Your task to perform on an android device: toggle javascript in the chrome app Image 0: 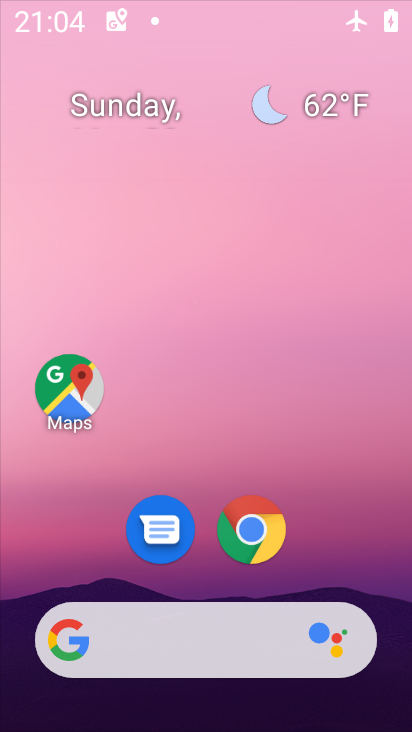
Step 0: press back button
Your task to perform on an android device: toggle javascript in the chrome app Image 1: 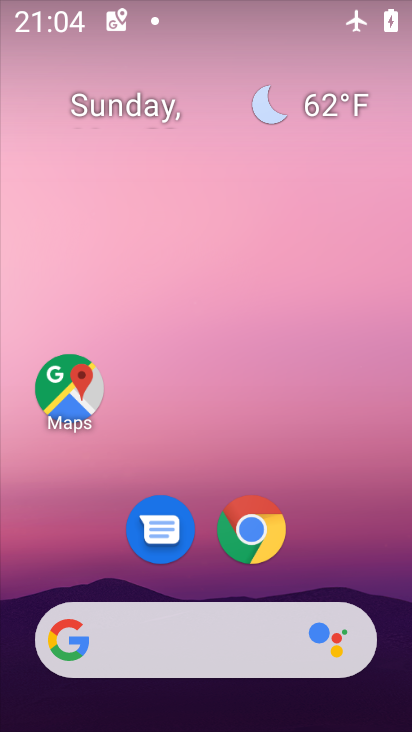
Step 1: drag from (249, 698) to (239, 216)
Your task to perform on an android device: toggle javascript in the chrome app Image 2: 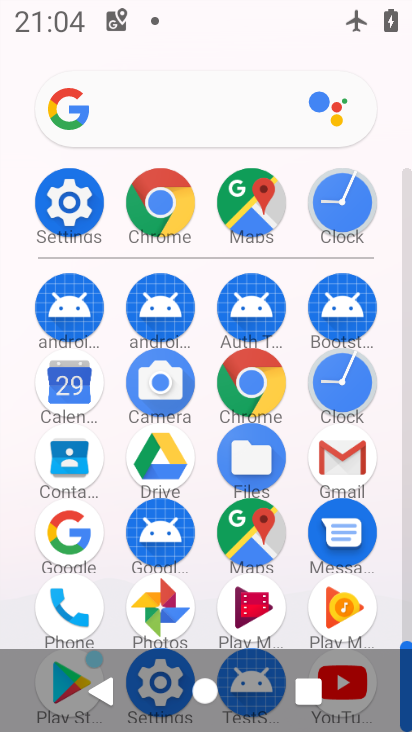
Step 2: click (146, 198)
Your task to perform on an android device: toggle javascript in the chrome app Image 3: 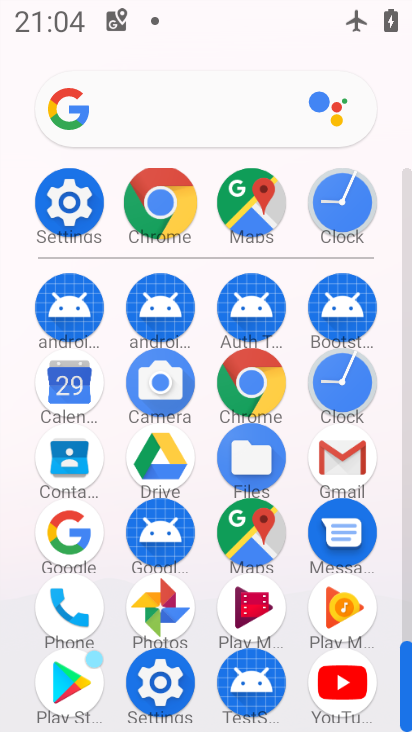
Step 3: click (149, 197)
Your task to perform on an android device: toggle javascript in the chrome app Image 4: 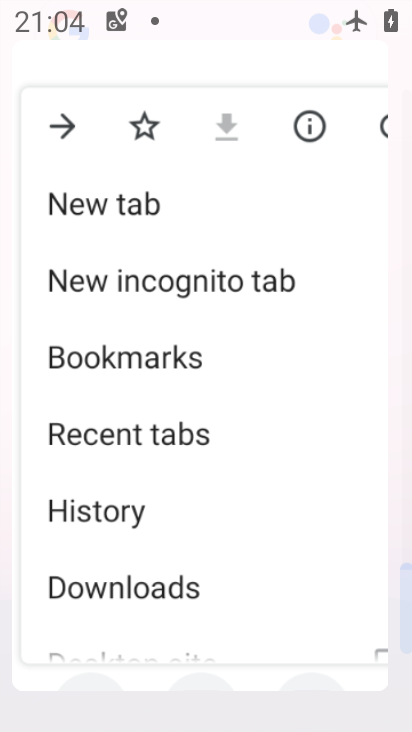
Step 4: click (150, 193)
Your task to perform on an android device: toggle javascript in the chrome app Image 5: 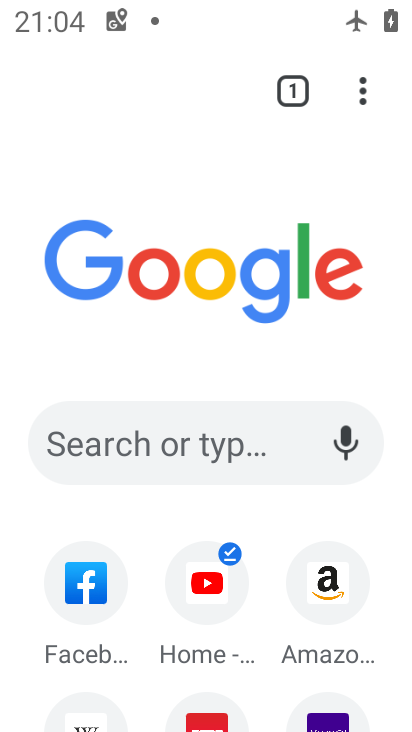
Step 5: press back button
Your task to perform on an android device: toggle javascript in the chrome app Image 6: 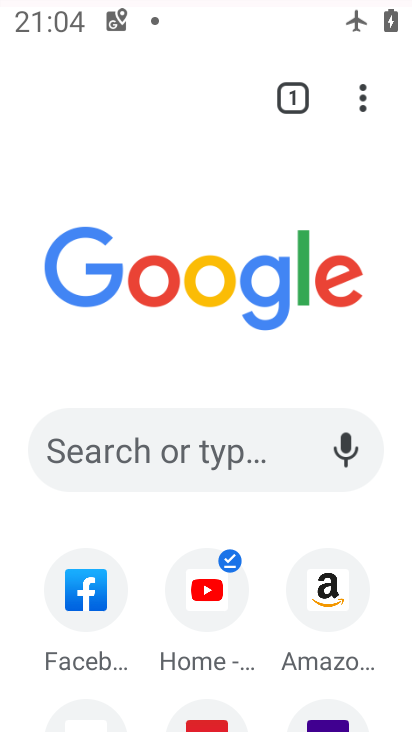
Step 6: press back button
Your task to perform on an android device: toggle javascript in the chrome app Image 7: 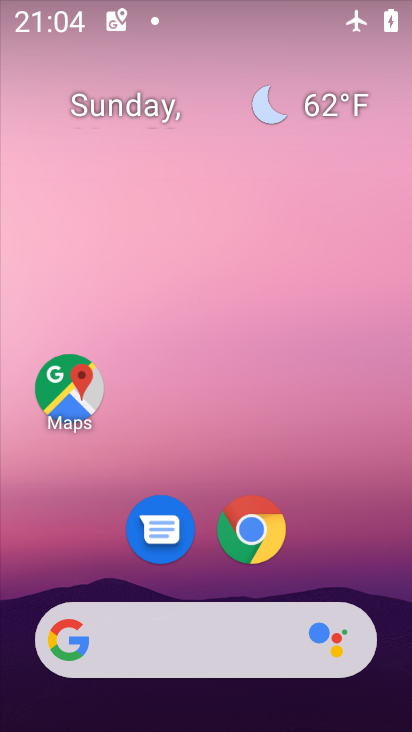
Step 7: drag from (163, 339) to (127, 83)
Your task to perform on an android device: toggle javascript in the chrome app Image 8: 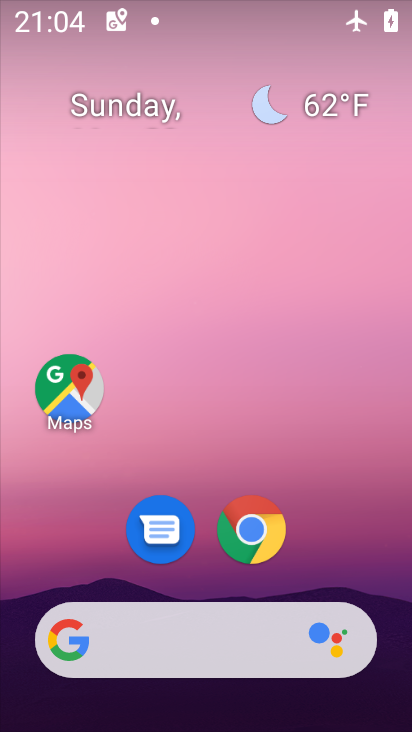
Step 8: drag from (251, 657) to (183, 225)
Your task to perform on an android device: toggle javascript in the chrome app Image 9: 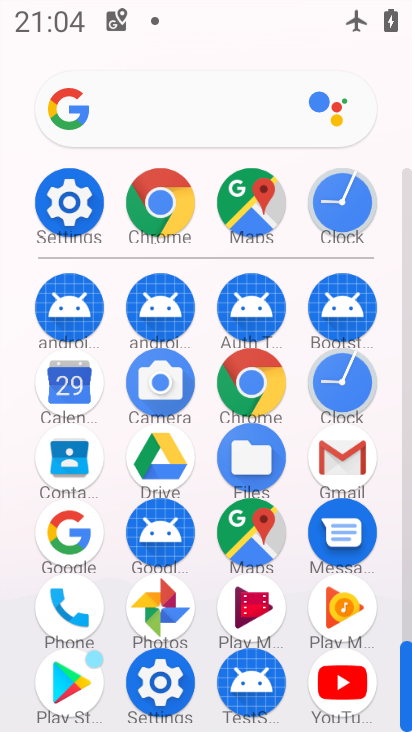
Step 9: drag from (218, 674) to (121, 267)
Your task to perform on an android device: toggle javascript in the chrome app Image 10: 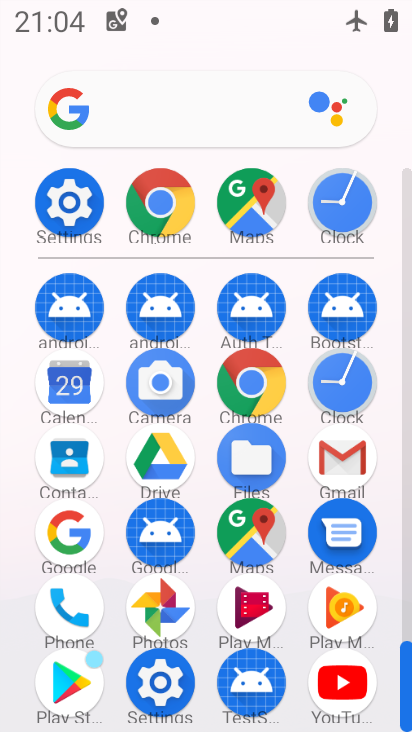
Step 10: click (166, 194)
Your task to perform on an android device: toggle javascript in the chrome app Image 11: 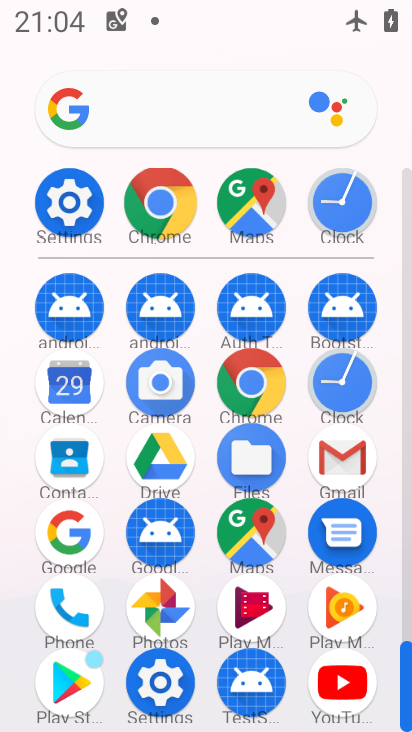
Step 11: click (166, 194)
Your task to perform on an android device: toggle javascript in the chrome app Image 12: 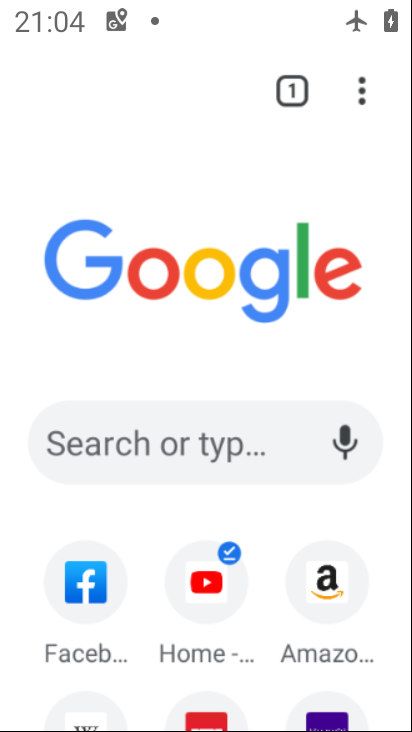
Step 12: click (167, 195)
Your task to perform on an android device: toggle javascript in the chrome app Image 13: 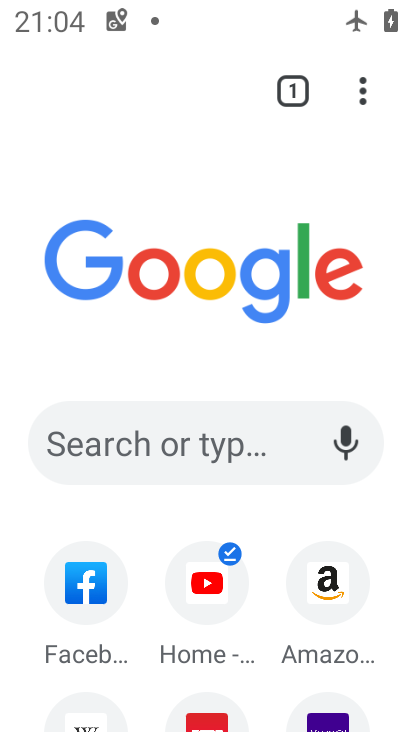
Step 13: click (356, 105)
Your task to perform on an android device: toggle javascript in the chrome app Image 14: 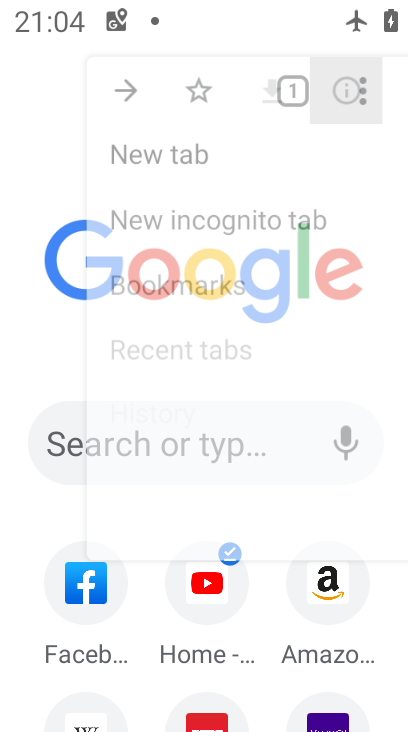
Step 14: click (358, 99)
Your task to perform on an android device: toggle javascript in the chrome app Image 15: 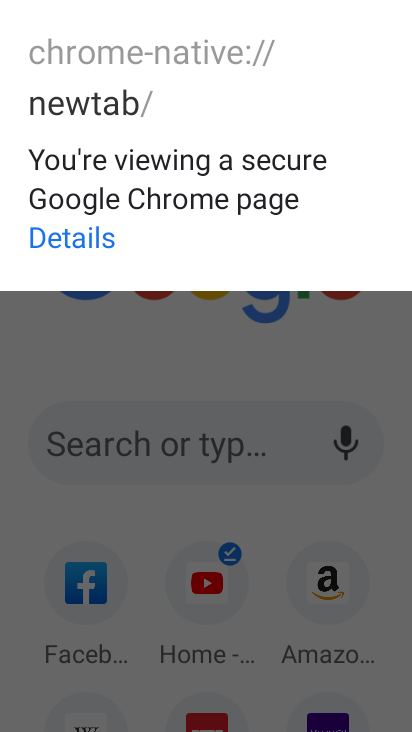
Step 15: click (214, 377)
Your task to perform on an android device: toggle javascript in the chrome app Image 16: 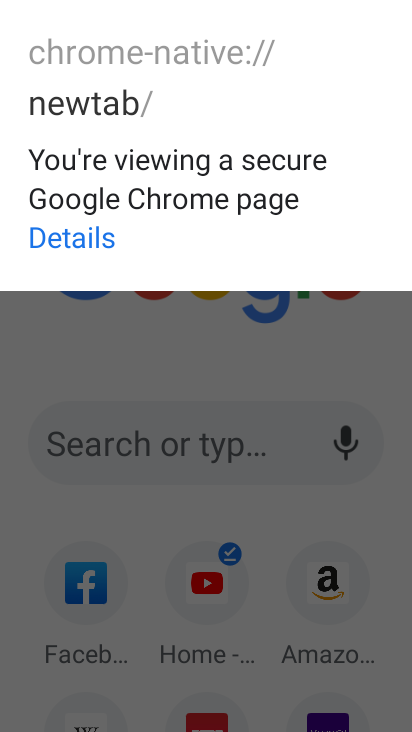
Step 16: click (209, 362)
Your task to perform on an android device: toggle javascript in the chrome app Image 17: 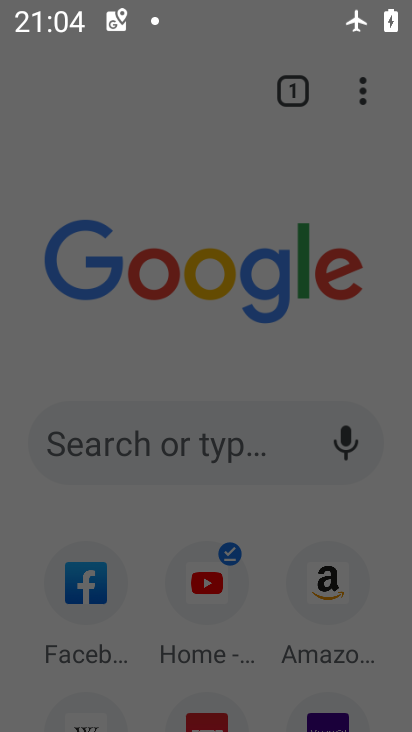
Step 17: click (201, 355)
Your task to perform on an android device: toggle javascript in the chrome app Image 18: 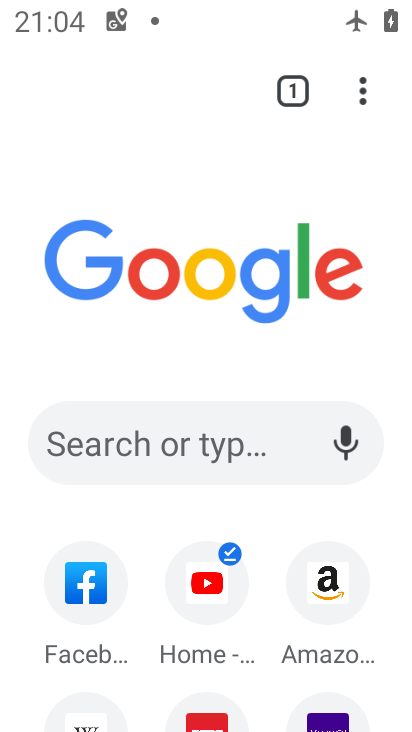
Step 18: click (353, 91)
Your task to perform on an android device: toggle javascript in the chrome app Image 19: 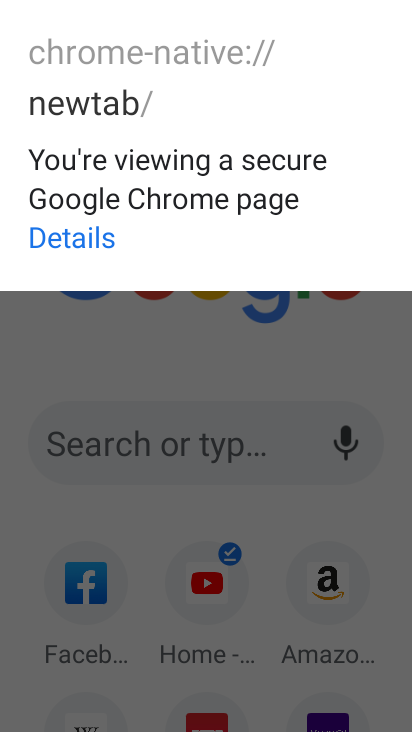
Step 19: click (157, 337)
Your task to perform on an android device: toggle javascript in the chrome app Image 20: 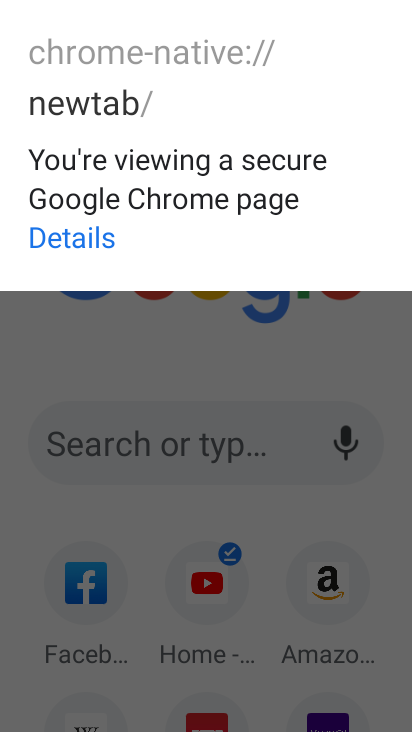
Step 20: click (157, 337)
Your task to perform on an android device: toggle javascript in the chrome app Image 21: 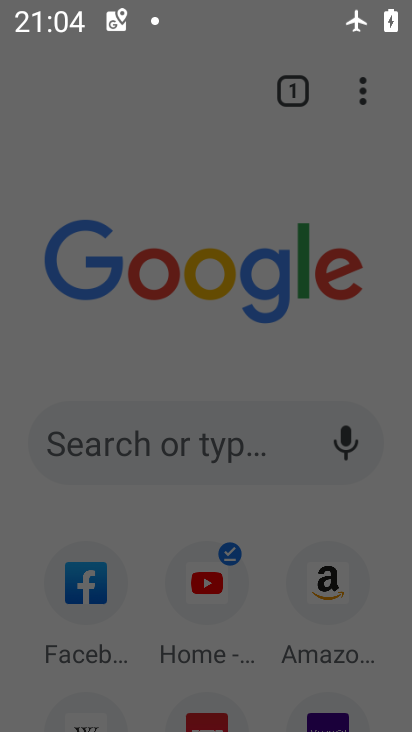
Step 21: click (157, 337)
Your task to perform on an android device: toggle javascript in the chrome app Image 22: 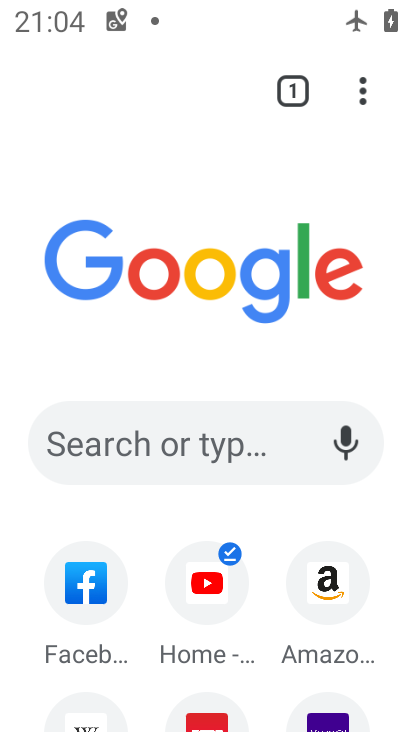
Step 22: click (365, 87)
Your task to perform on an android device: toggle javascript in the chrome app Image 23: 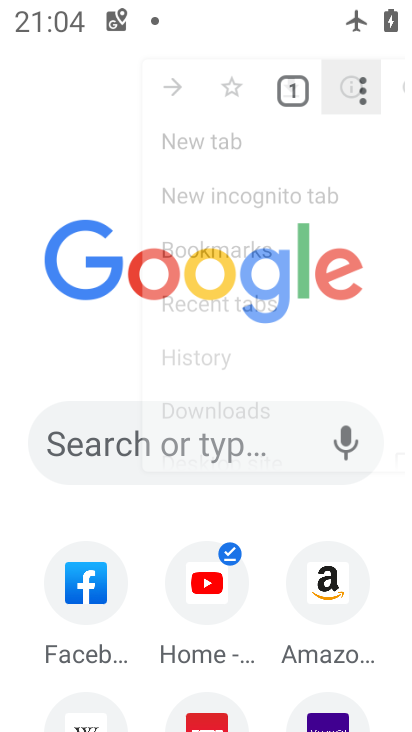
Step 23: click (355, 99)
Your task to perform on an android device: toggle javascript in the chrome app Image 24: 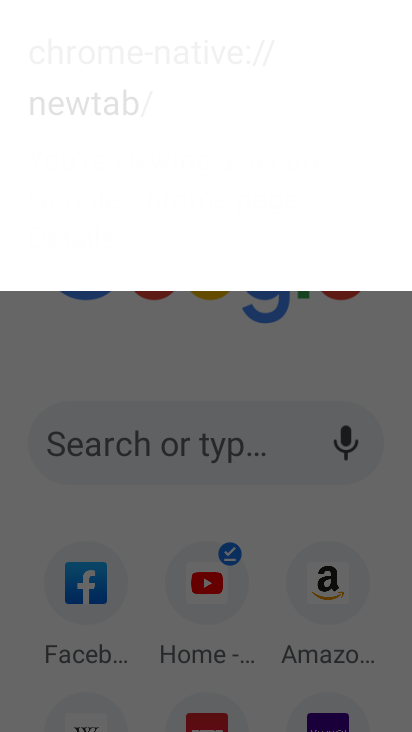
Step 24: click (355, 99)
Your task to perform on an android device: toggle javascript in the chrome app Image 25: 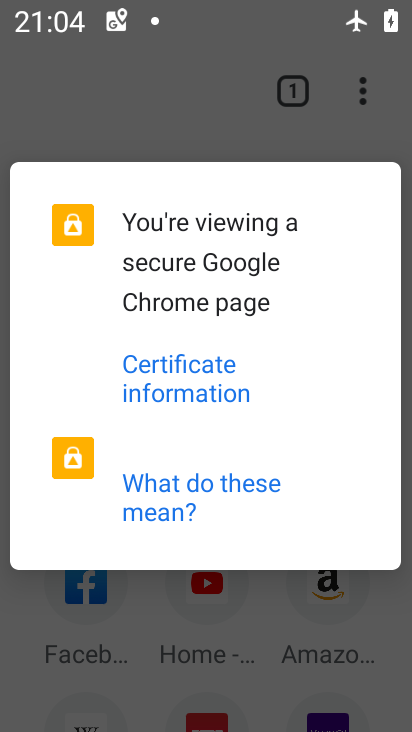
Step 25: click (355, 99)
Your task to perform on an android device: toggle javascript in the chrome app Image 26: 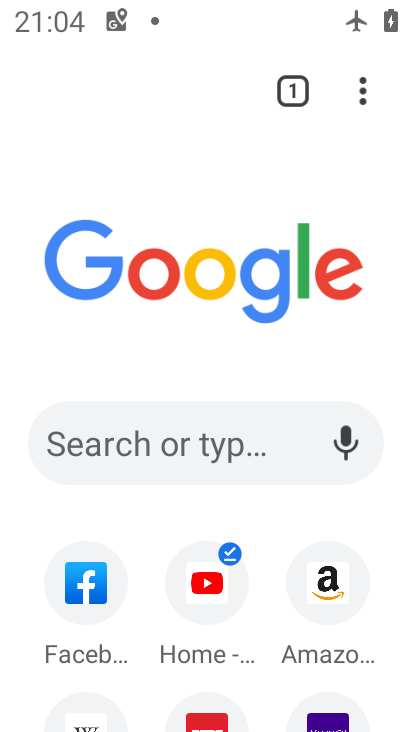
Step 26: click (355, 99)
Your task to perform on an android device: toggle javascript in the chrome app Image 27: 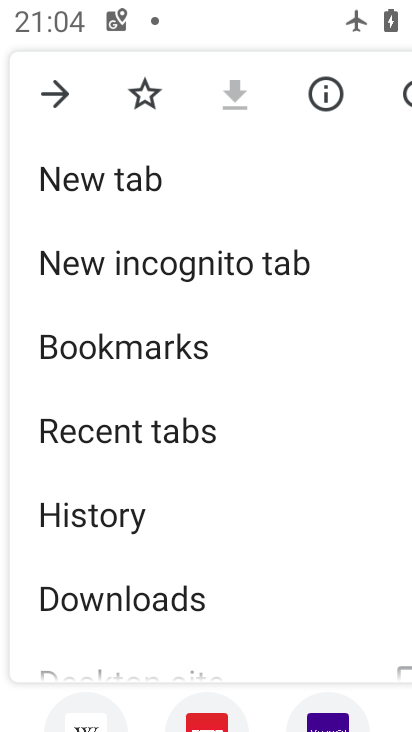
Step 27: drag from (118, 570) to (106, 189)
Your task to perform on an android device: toggle javascript in the chrome app Image 28: 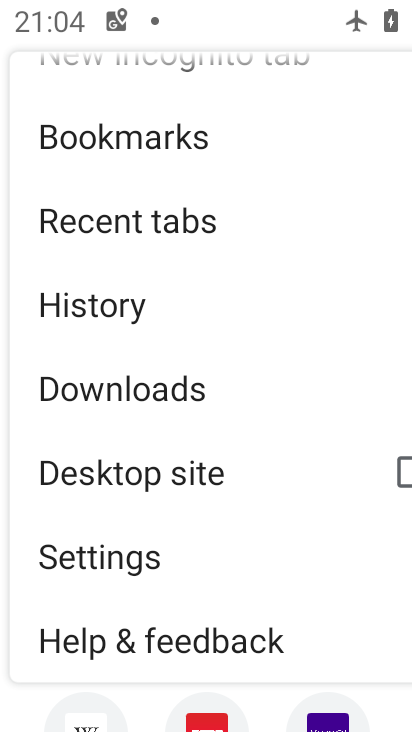
Step 28: drag from (133, 460) to (121, 100)
Your task to perform on an android device: toggle javascript in the chrome app Image 29: 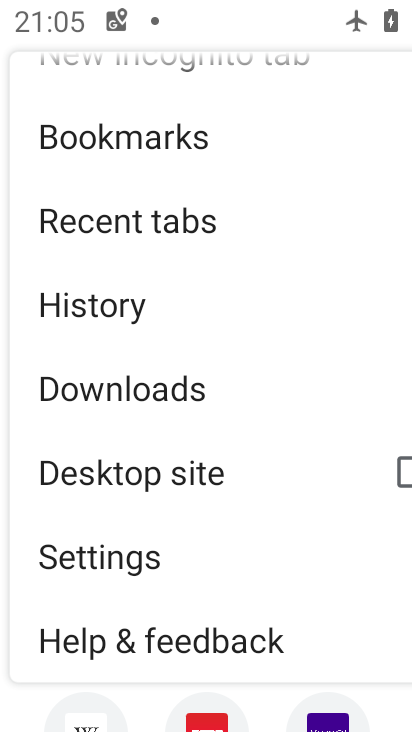
Step 29: click (95, 556)
Your task to perform on an android device: toggle javascript in the chrome app Image 30: 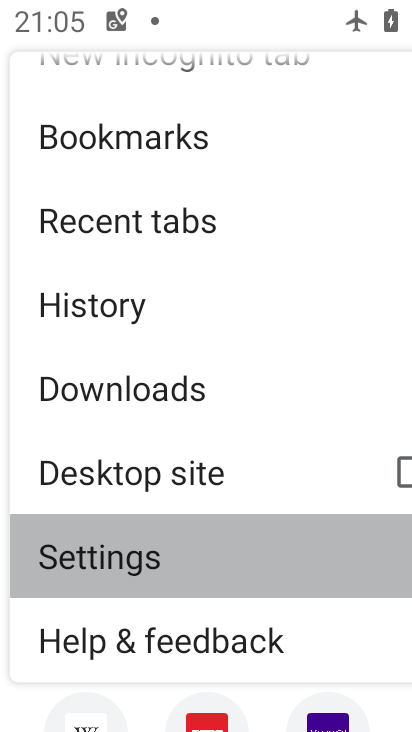
Step 30: click (95, 556)
Your task to perform on an android device: toggle javascript in the chrome app Image 31: 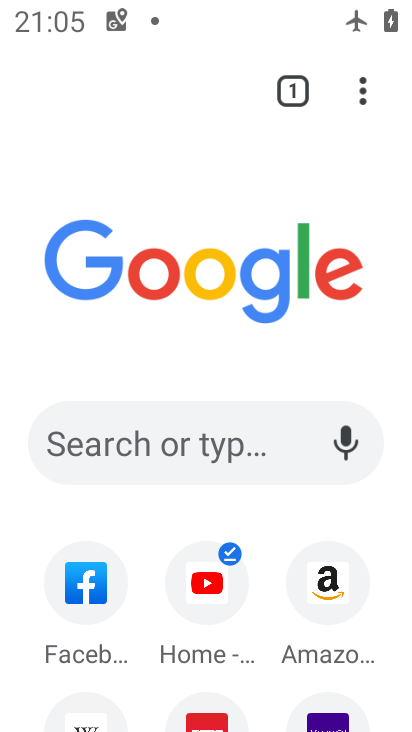
Step 31: click (95, 556)
Your task to perform on an android device: toggle javascript in the chrome app Image 32: 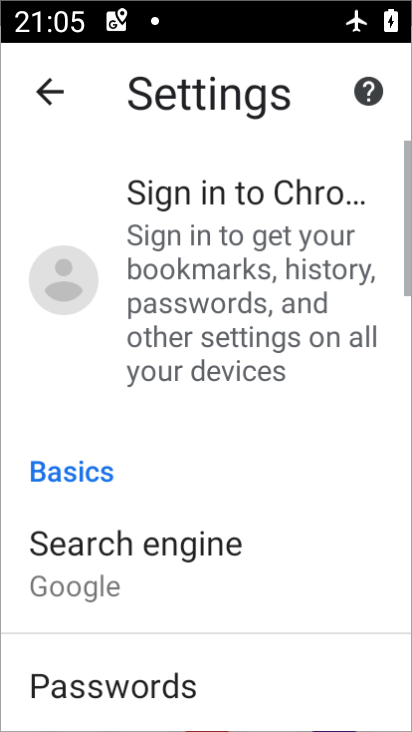
Step 32: click (95, 556)
Your task to perform on an android device: toggle javascript in the chrome app Image 33: 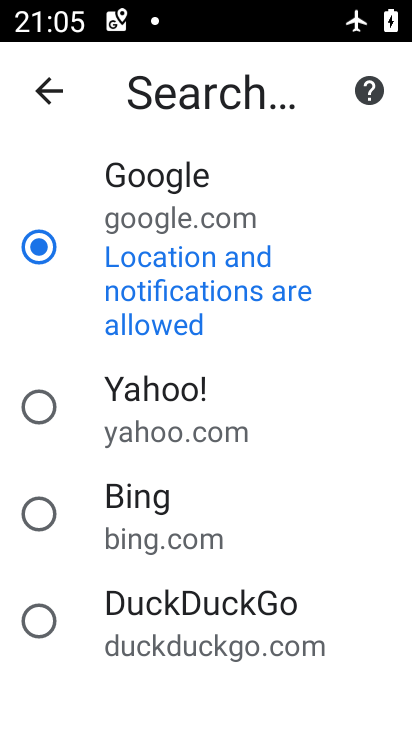
Step 33: click (41, 96)
Your task to perform on an android device: toggle javascript in the chrome app Image 34: 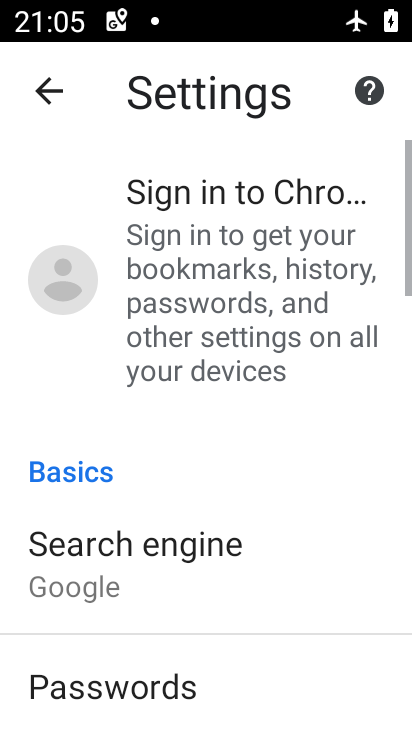
Step 34: drag from (207, 595) to (161, 277)
Your task to perform on an android device: toggle javascript in the chrome app Image 35: 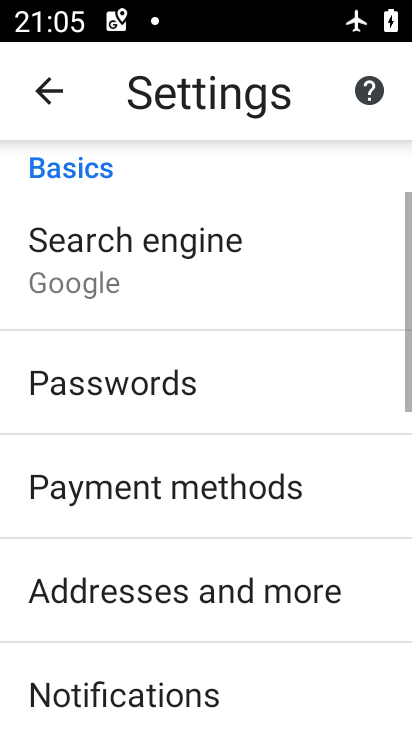
Step 35: drag from (180, 470) to (208, 152)
Your task to perform on an android device: toggle javascript in the chrome app Image 36: 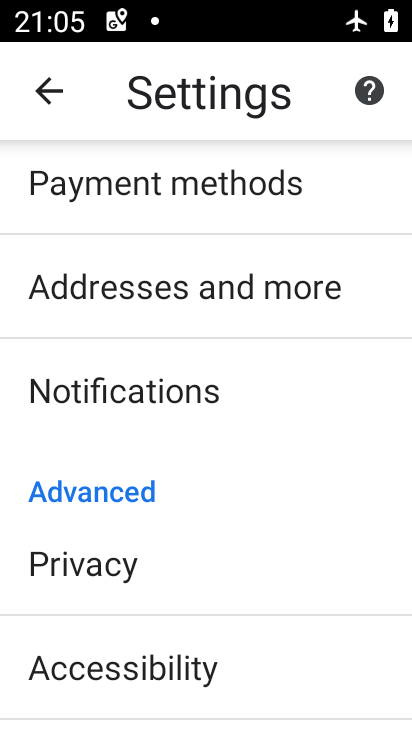
Step 36: drag from (92, 627) to (109, 227)
Your task to perform on an android device: toggle javascript in the chrome app Image 37: 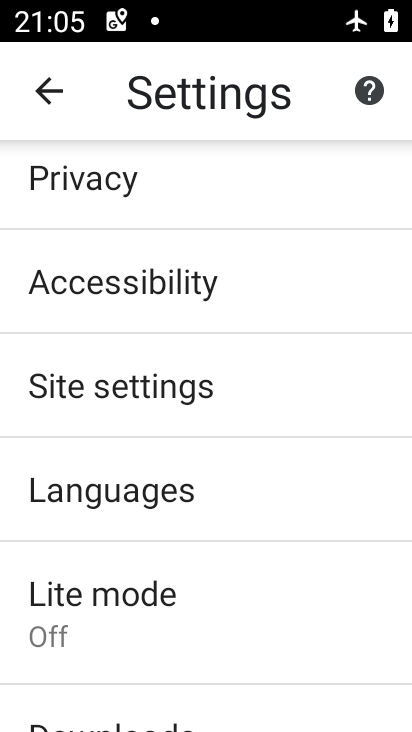
Step 37: drag from (118, 493) to (174, 203)
Your task to perform on an android device: toggle javascript in the chrome app Image 38: 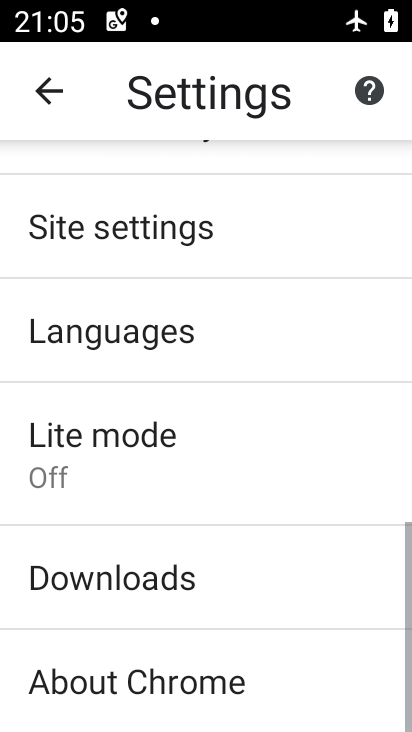
Step 38: drag from (192, 498) to (245, 145)
Your task to perform on an android device: toggle javascript in the chrome app Image 39: 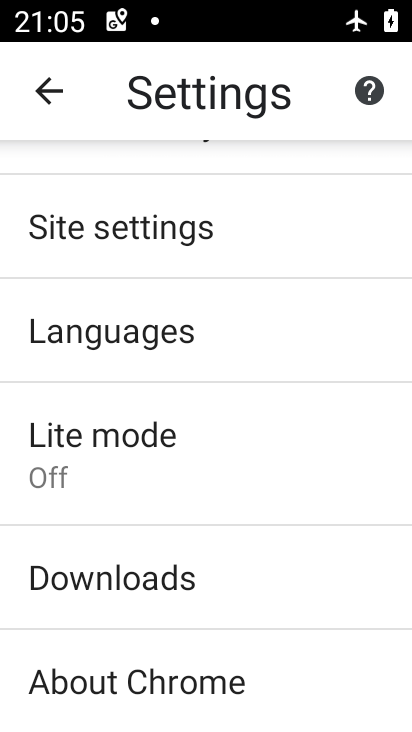
Step 39: drag from (139, 547) to (105, 221)
Your task to perform on an android device: toggle javascript in the chrome app Image 40: 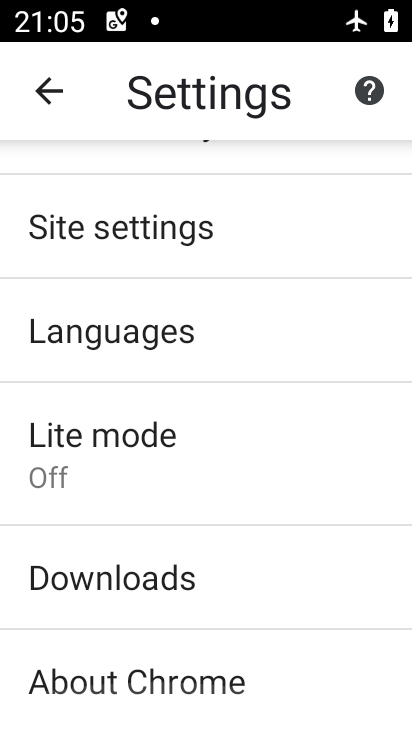
Step 40: drag from (62, 553) to (69, 284)
Your task to perform on an android device: toggle javascript in the chrome app Image 41: 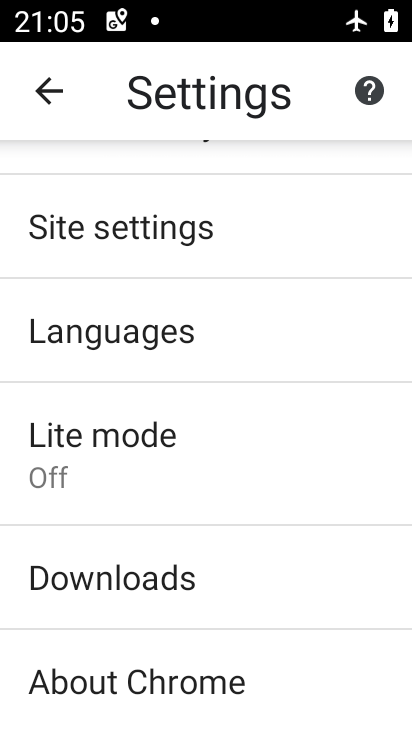
Step 41: drag from (115, 275) to (115, 537)
Your task to perform on an android device: toggle javascript in the chrome app Image 42: 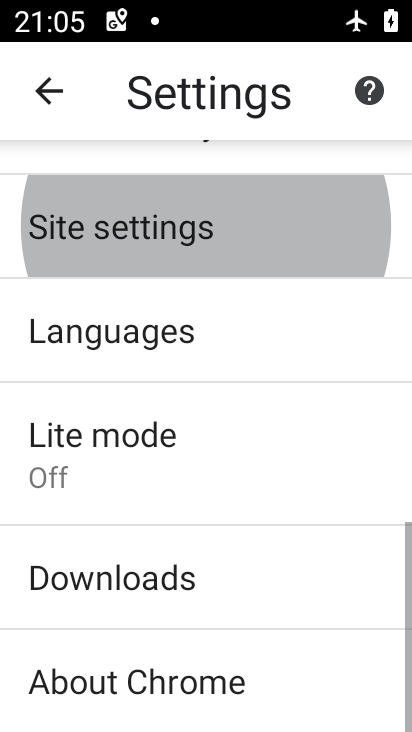
Step 42: click (99, 658)
Your task to perform on an android device: toggle javascript in the chrome app Image 43: 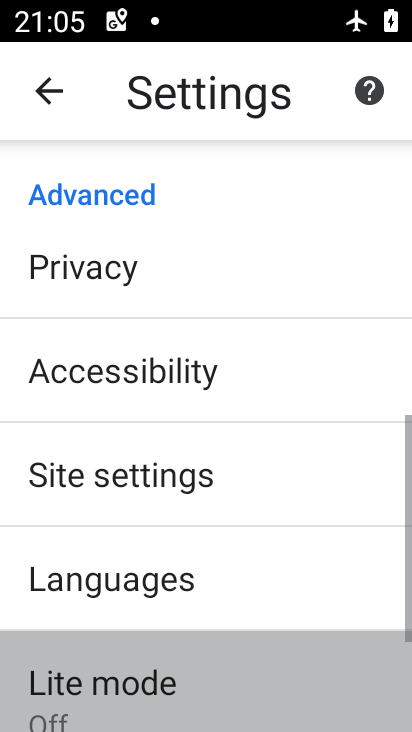
Step 43: drag from (160, 209) to (122, 580)
Your task to perform on an android device: toggle javascript in the chrome app Image 44: 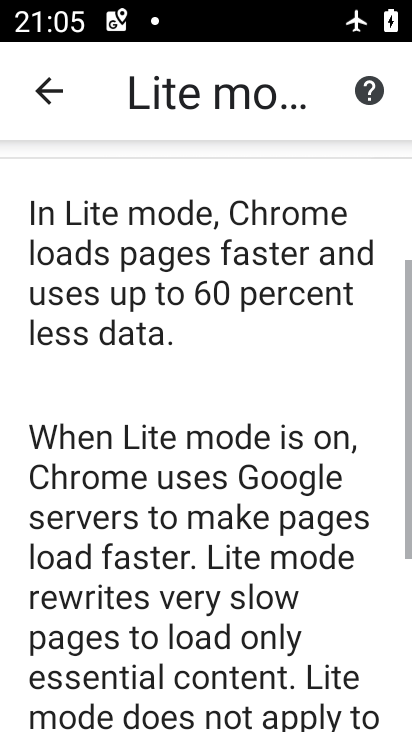
Step 44: drag from (110, 563) to (61, 570)
Your task to perform on an android device: toggle javascript in the chrome app Image 45: 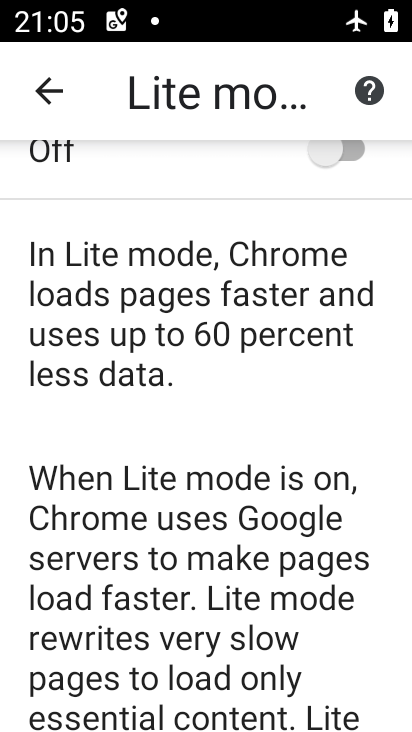
Step 45: click (35, 91)
Your task to perform on an android device: toggle javascript in the chrome app Image 46: 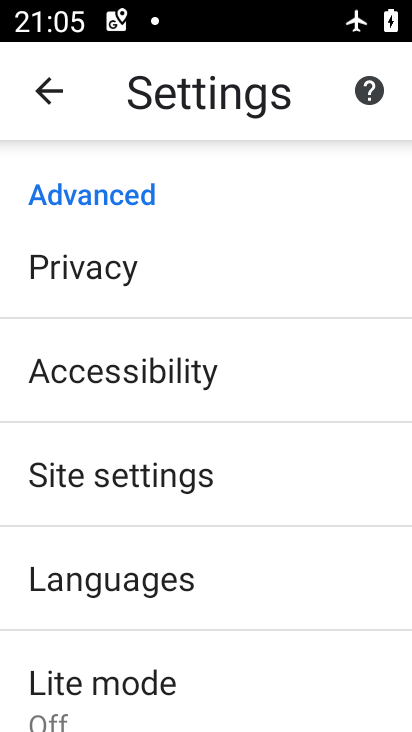
Step 46: click (84, 466)
Your task to perform on an android device: toggle javascript in the chrome app Image 47: 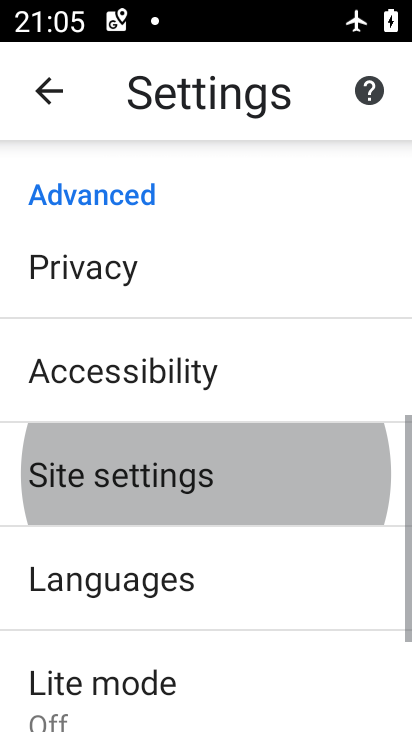
Step 47: click (89, 466)
Your task to perform on an android device: toggle javascript in the chrome app Image 48: 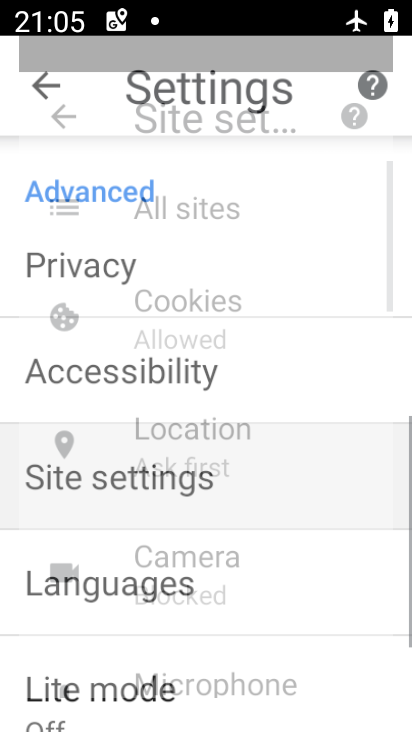
Step 48: click (91, 465)
Your task to perform on an android device: toggle javascript in the chrome app Image 49: 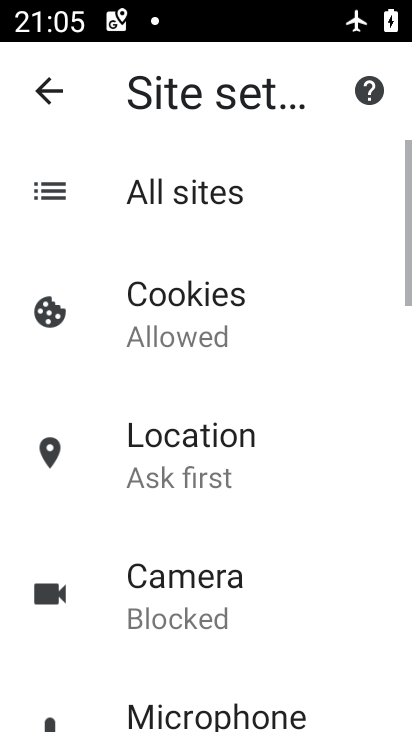
Step 49: click (101, 470)
Your task to perform on an android device: toggle javascript in the chrome app Image 50: 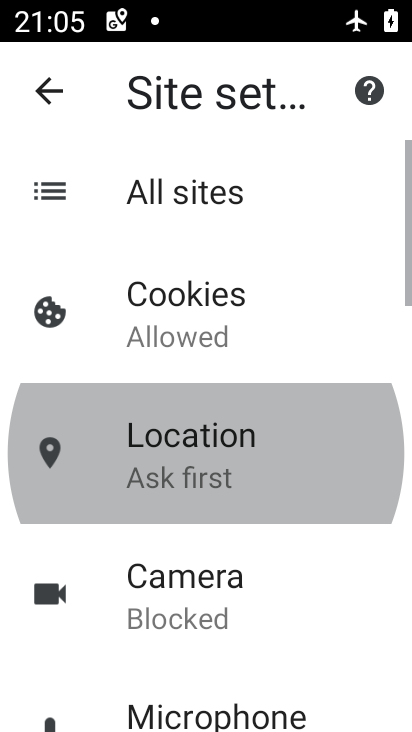
Step 50: click (102, 471)
Your task to perform on an android device: toggle javascript in the chrome app Image 51: 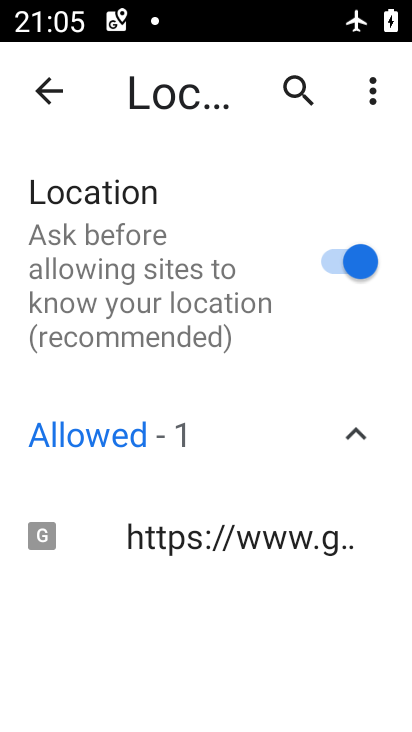
Step 51: click (48, 104)
Your task to perform on an android device: toggle javascript in the chrome app Image 52: 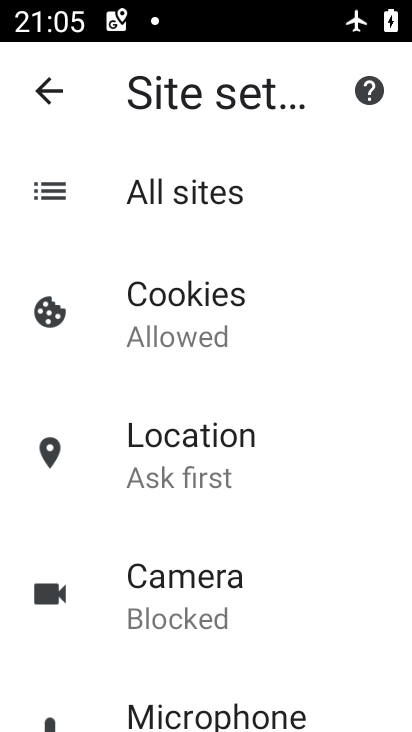
Step 52: drag from (205, 513) to (204, 218)
Your task to perform on an android device: toggle javascript in the chrome app Image 53: 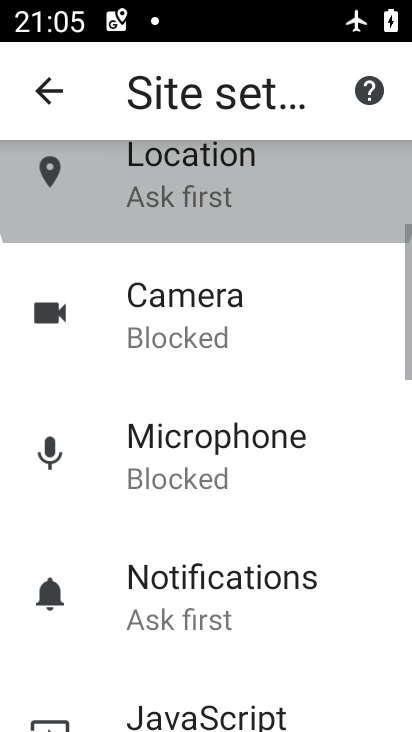
Step 53: drag from (202, 532) to (200, 183)
Your task to perform on an android device: toggle javascript in the chrome app Image 54: 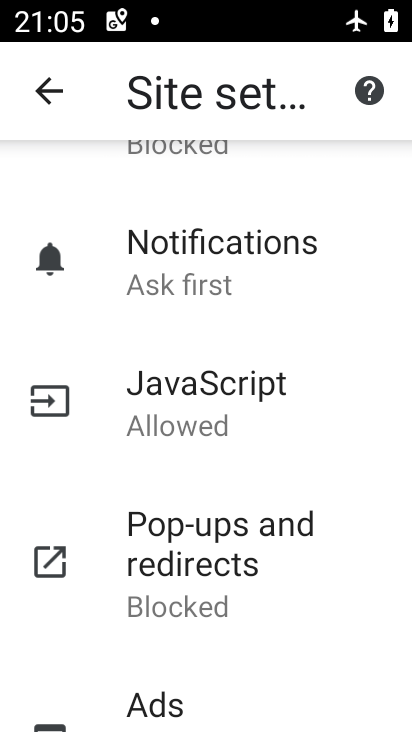
Step 54: click (169, 402)
Your task to perform on an android device: toggle javascript in the chrome app Image 55: 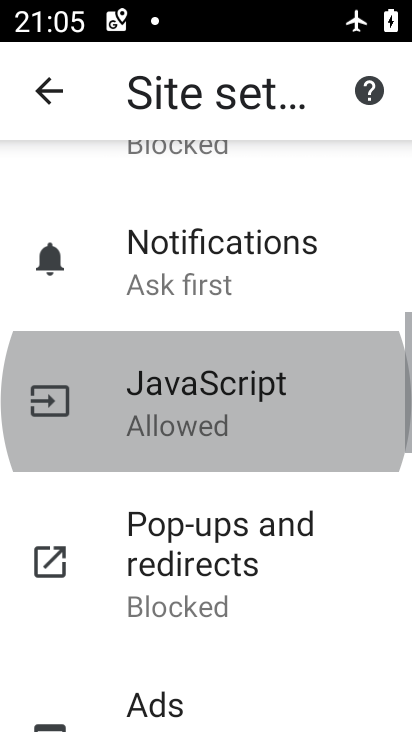
Step 55: click (169, 402)
Your task to perform on an android device: toggle javascript in the chrome app Image 56: 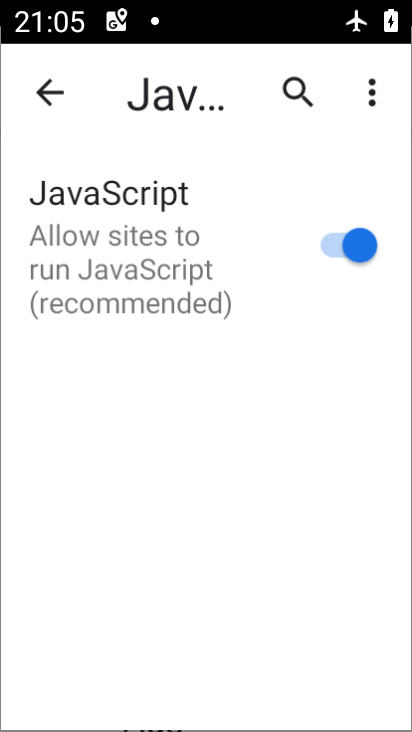
Step 56: click (169, 402)
Your task to perform on an android device: toggle javascript in the chrome app Image 57: 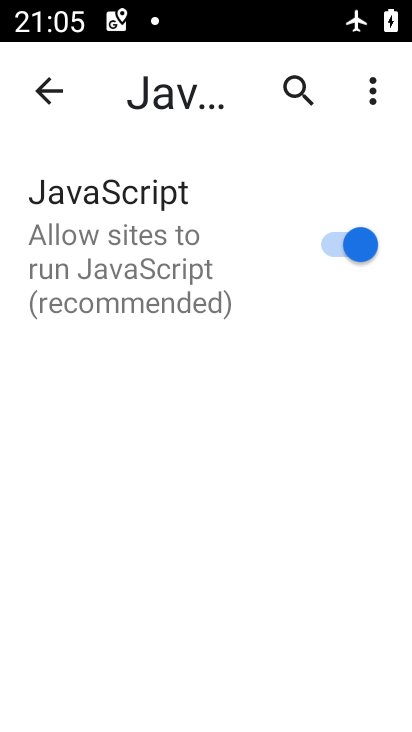
Step 57: click (171, 401)
Your task to perform on an android device: toggle javascript in the chrome app Image 58: 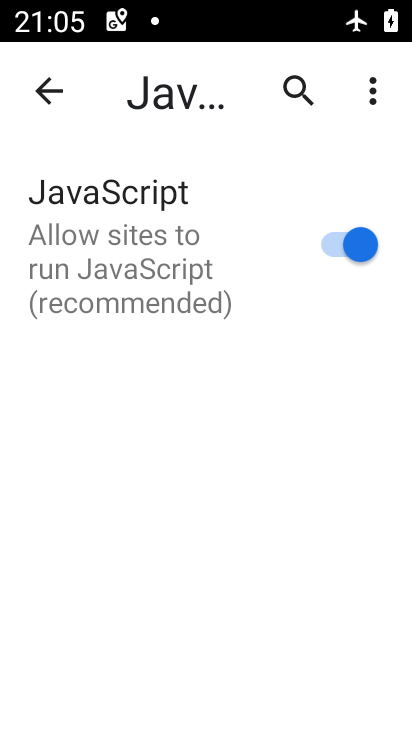
Step 58: click (347, 251)
Your task to perform on an android device: toggle javascript in the chrome app Image 59: 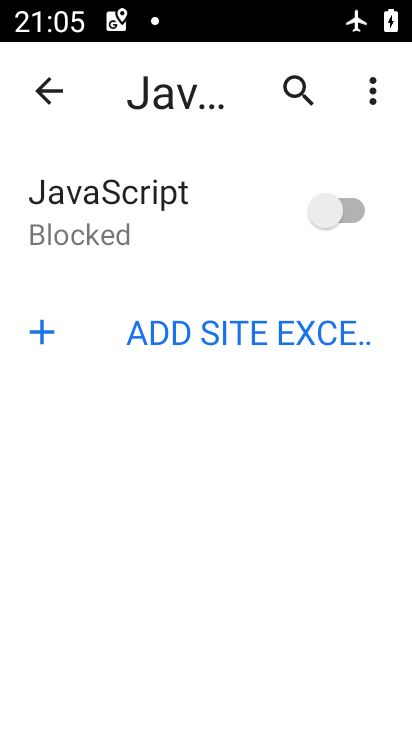
Step 59: task complete